Your task to perform on an android device: What's the weather going to be tomorrow? Image 0: 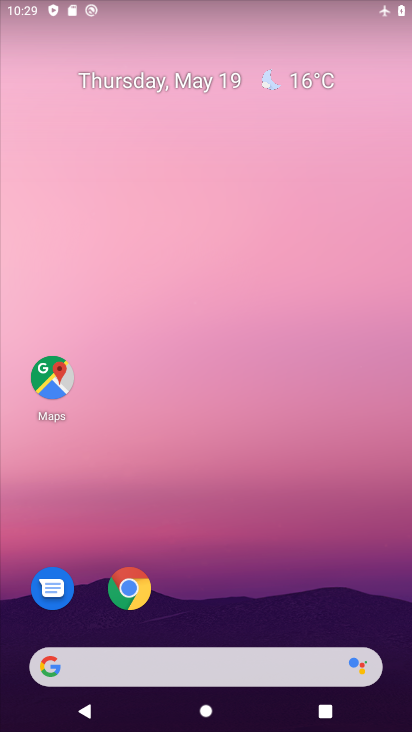
Step 0: drag from (291, 518) to (338, 164)
Your task to perform on an android device: What's the weather going to be tomorrow? Image 1: 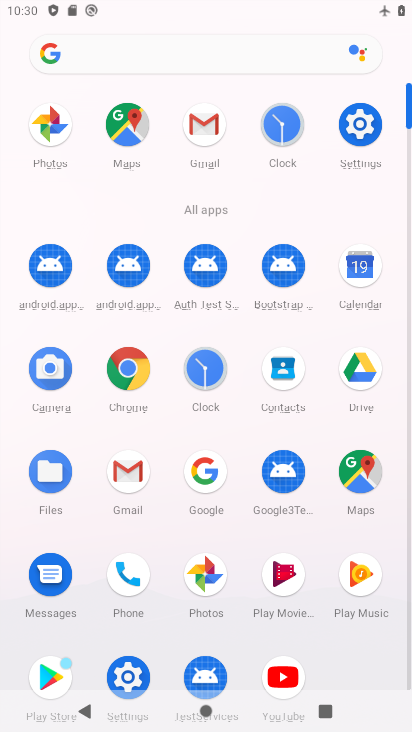
Step 1: click (209, 478)
Your task to perform on an android device: What's the weather going to be tomorrow? Image 2: 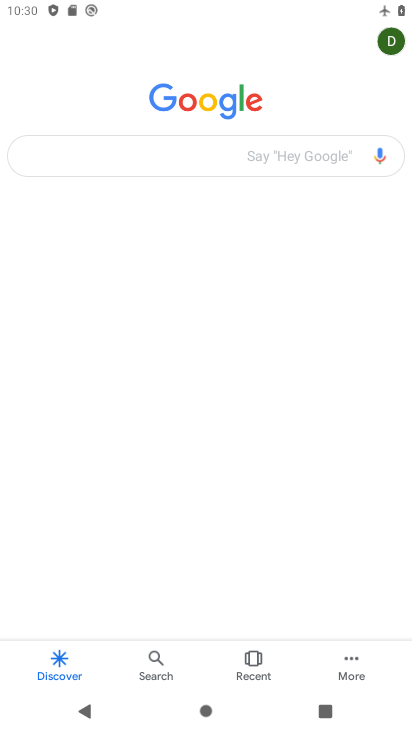
Step 2: click (186, 147)
Your task to perform on an android device: What's the weather going to be tomorrow? Image 3: 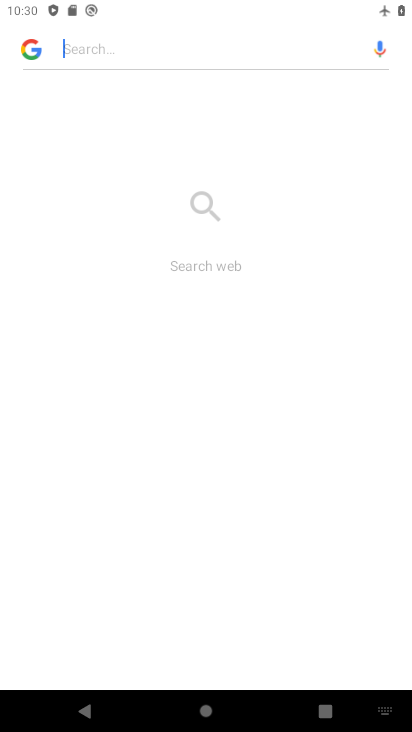
Step 3: task complete